Your task to perform on an android device: clear history in the chrome app Image 0: 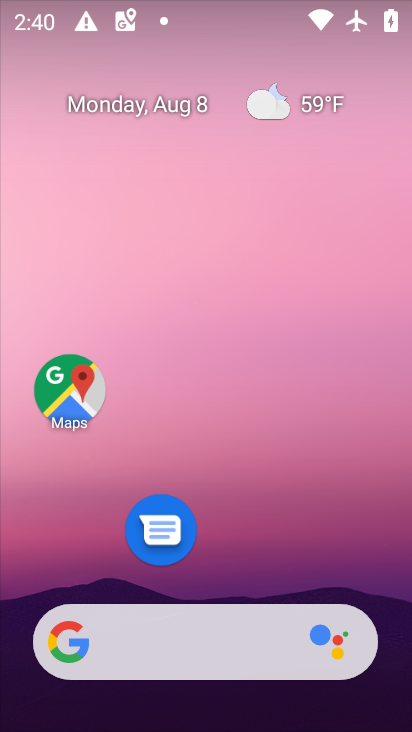
Step 0: drag from (199, 530) to (235, 4)
Your task to perform on an android device: clear history in the chrome app Image 1: 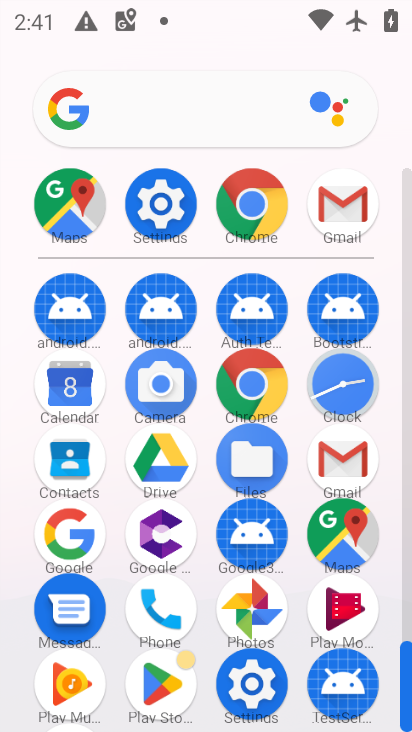
Step 1: click (245, 388)
Your task to perform on an android device: clear history in the chrome app Image 2: 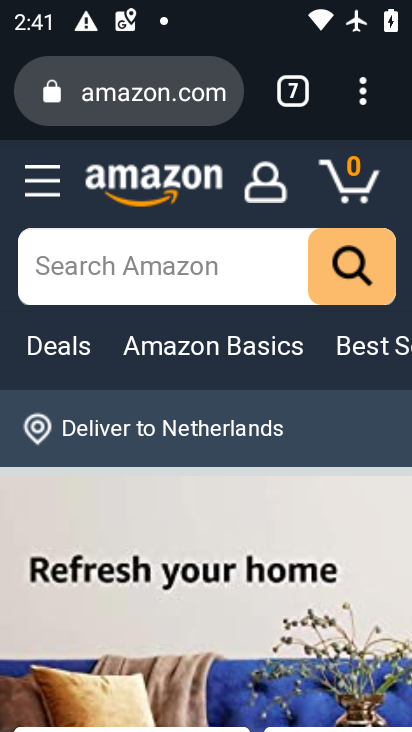
Step 2: drag from (366, 101) to (11, 532)
Your task to perform on an android device: clear history in the chrome app Image 3: 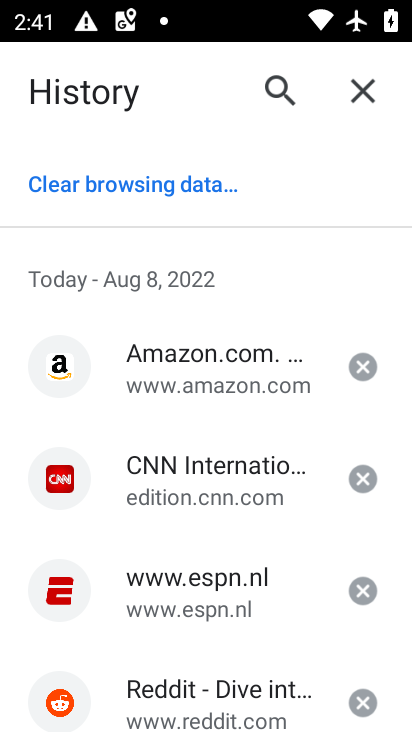
Step 3: click (167, 184)
Your task to perform on an android device: clear history in the chrome app Image 4: 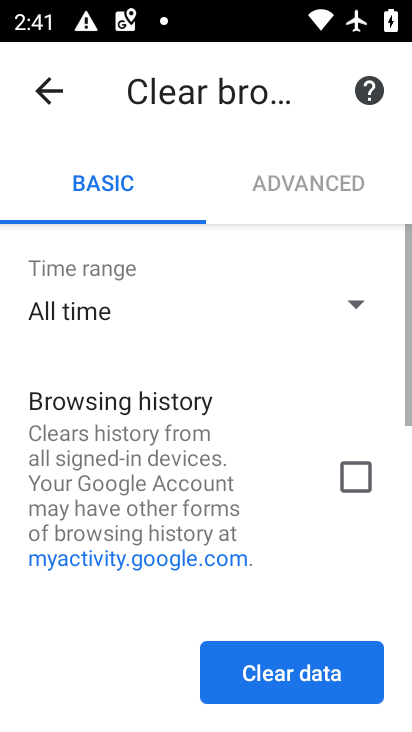
Step 4: drag from (287, 495) to (300, 208)
Your task to perform on an android device: clear history in the chrome app Image 5: 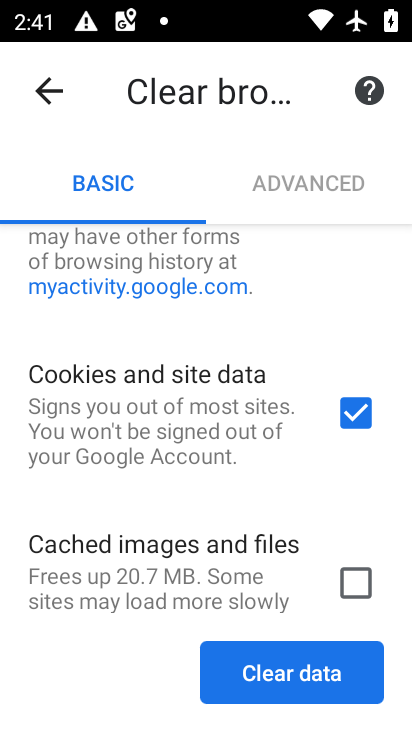
Step 5: click (352, 416)
Your task to perform on an android device: clear history in the chrome app Image 6: 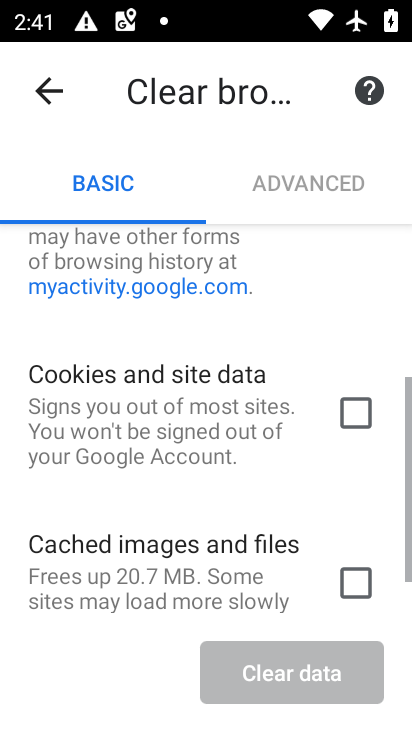
Step 6: drag from (303, 297) to (271, 542)
Your task to perform on an android device: clear history in the chrome app Image 7: 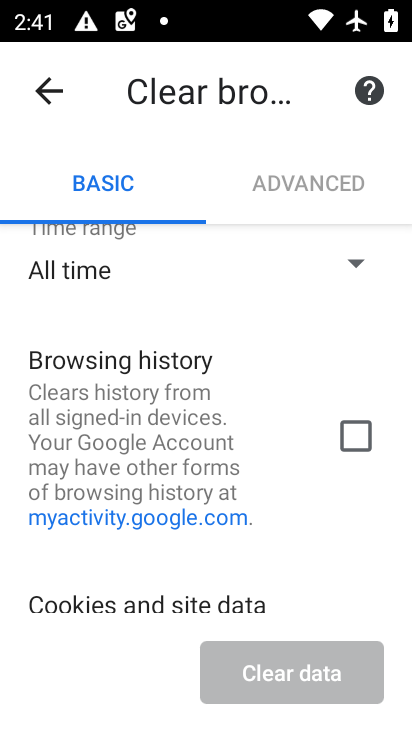
Step 7: click (338, 434)
Your task to perform on an android device: clear history in the chrome app Image 8: 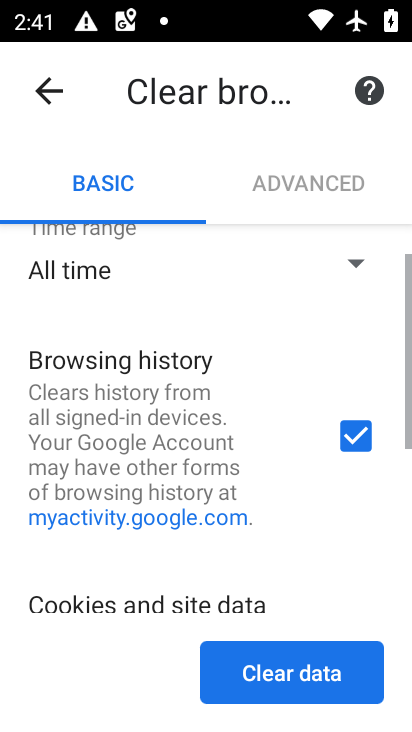
Step 8: click (295, 697)
Your task to perform on an android device: clear history in the chrome app Image 9: 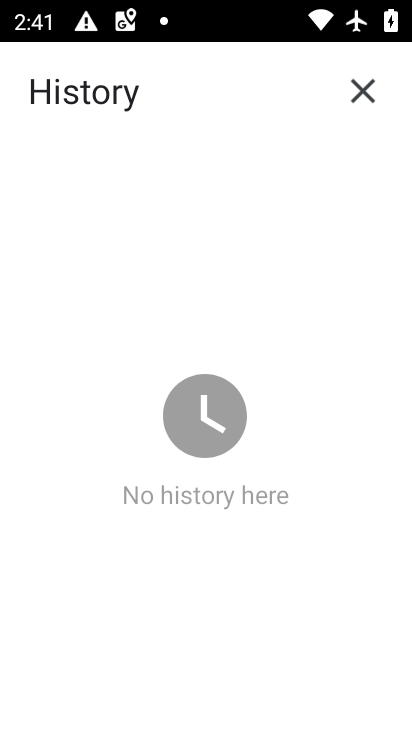
Step 9: task complete